Your task to perform on an android device: toggle data saver in the chrome app Image 0: 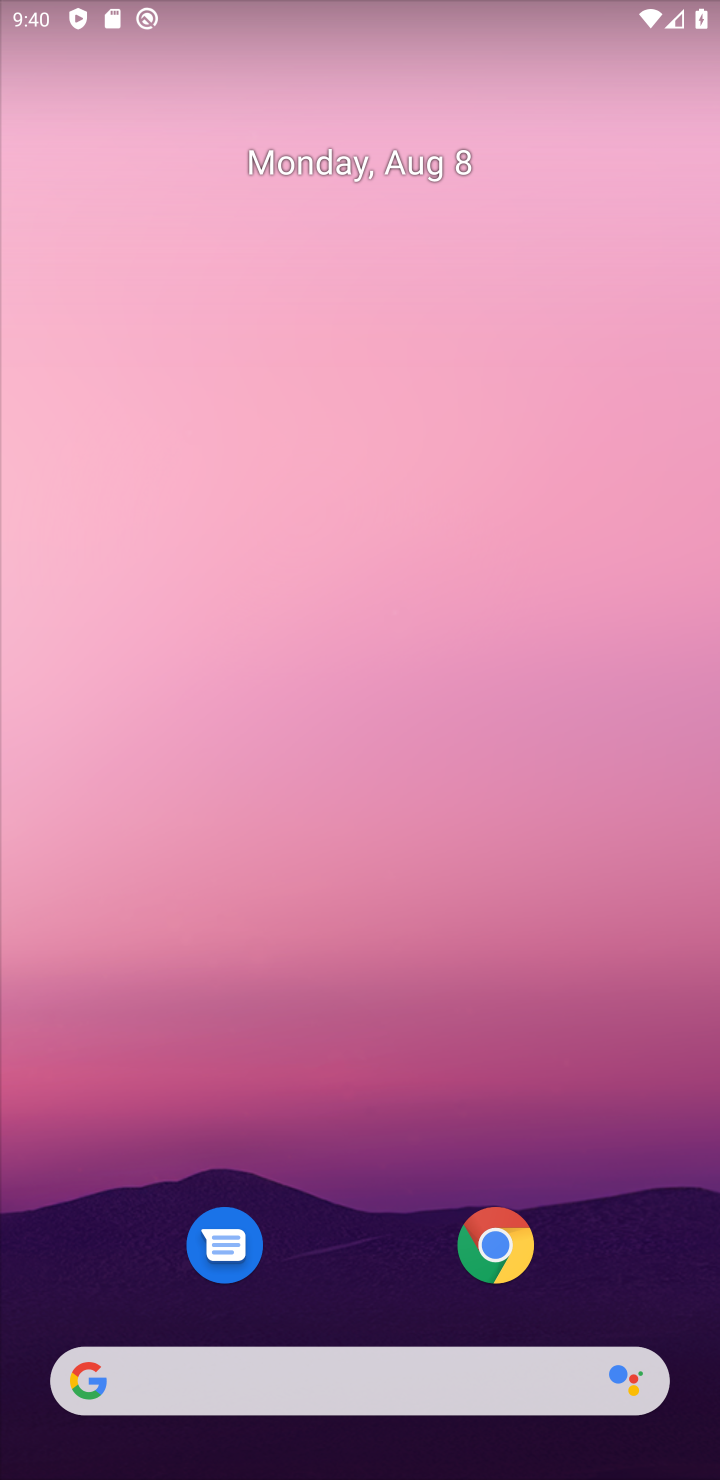
Step 0: press home button
Your task to perform on an android device: toggle data saver in the chrome app Image 1: 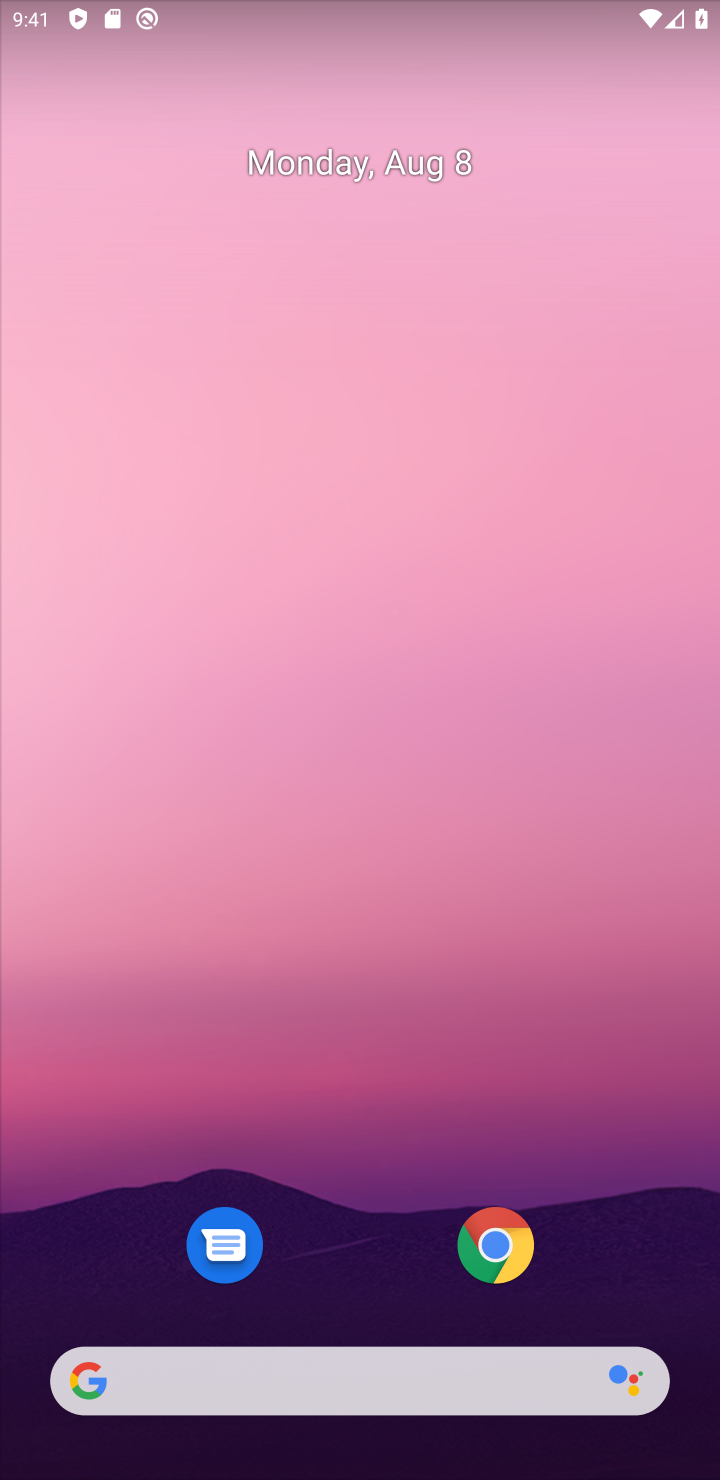
Step 1: click (496, 1243)
Your task to perform on an android device: toggle data saver in the chrome app Image 2: 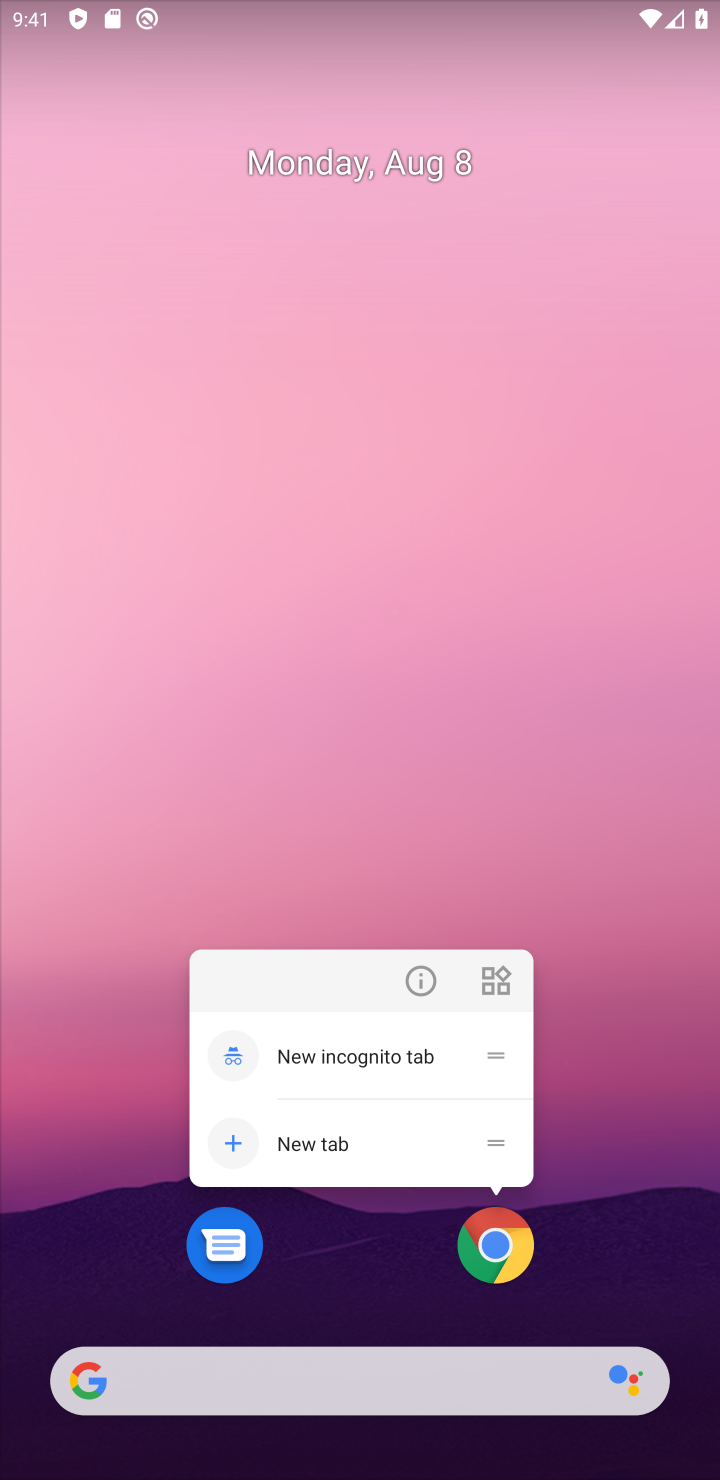
Step 2: click (496, 1243)
Your task to perform on an android device: toggle data saver in the chrome app Image 3: 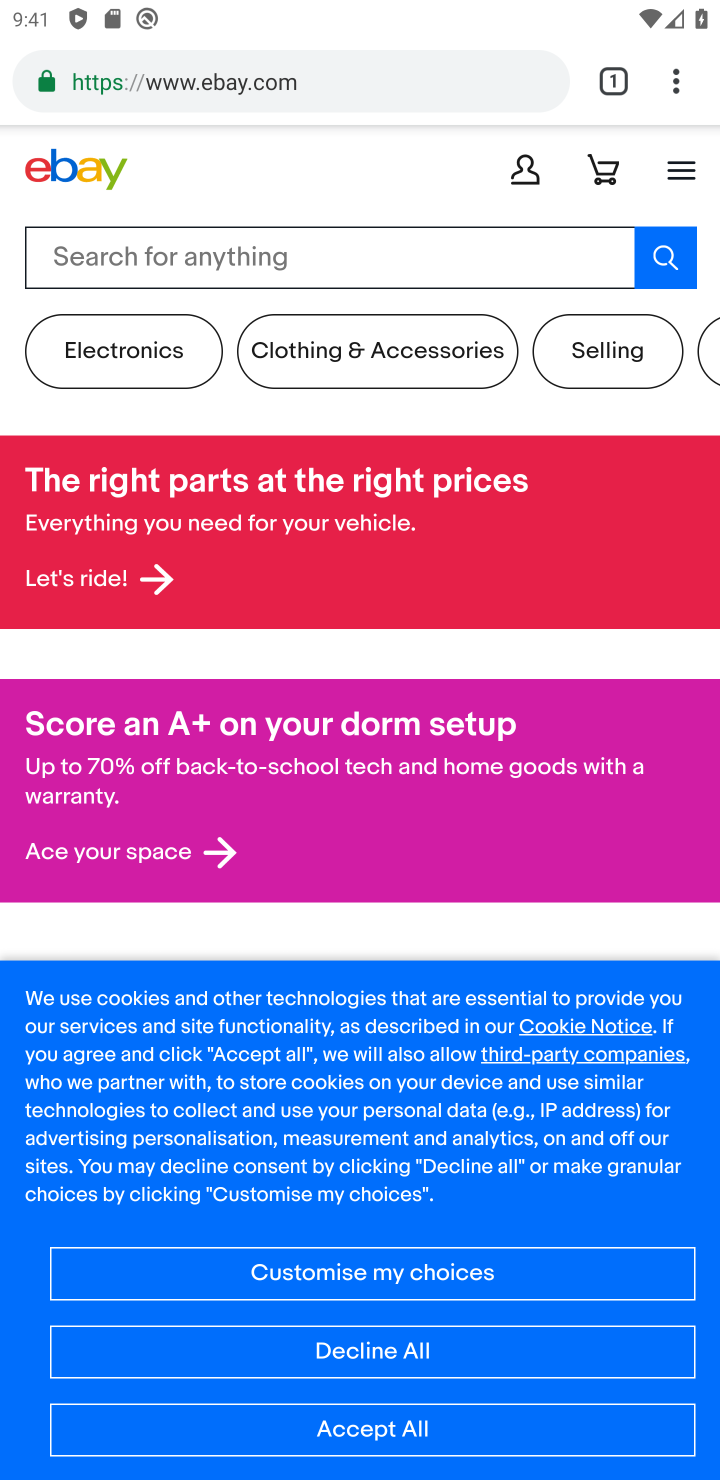
Step 3: click (665, 73)
Your task to perform on an android device: toggle data saver in the chrome app Image 4: 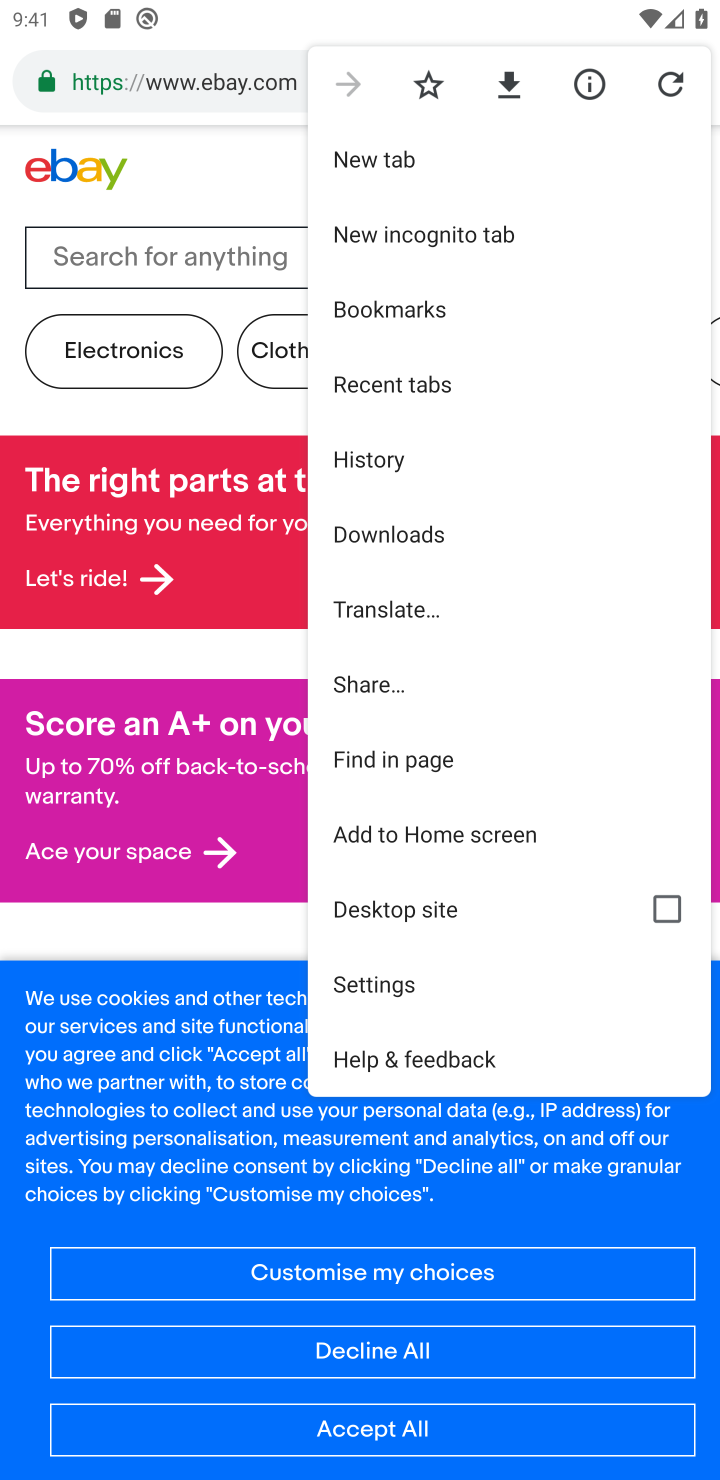
Step 4: click (392, 973)
Your task to perform on an android device: toggle data saver in the chrome app Image 5: 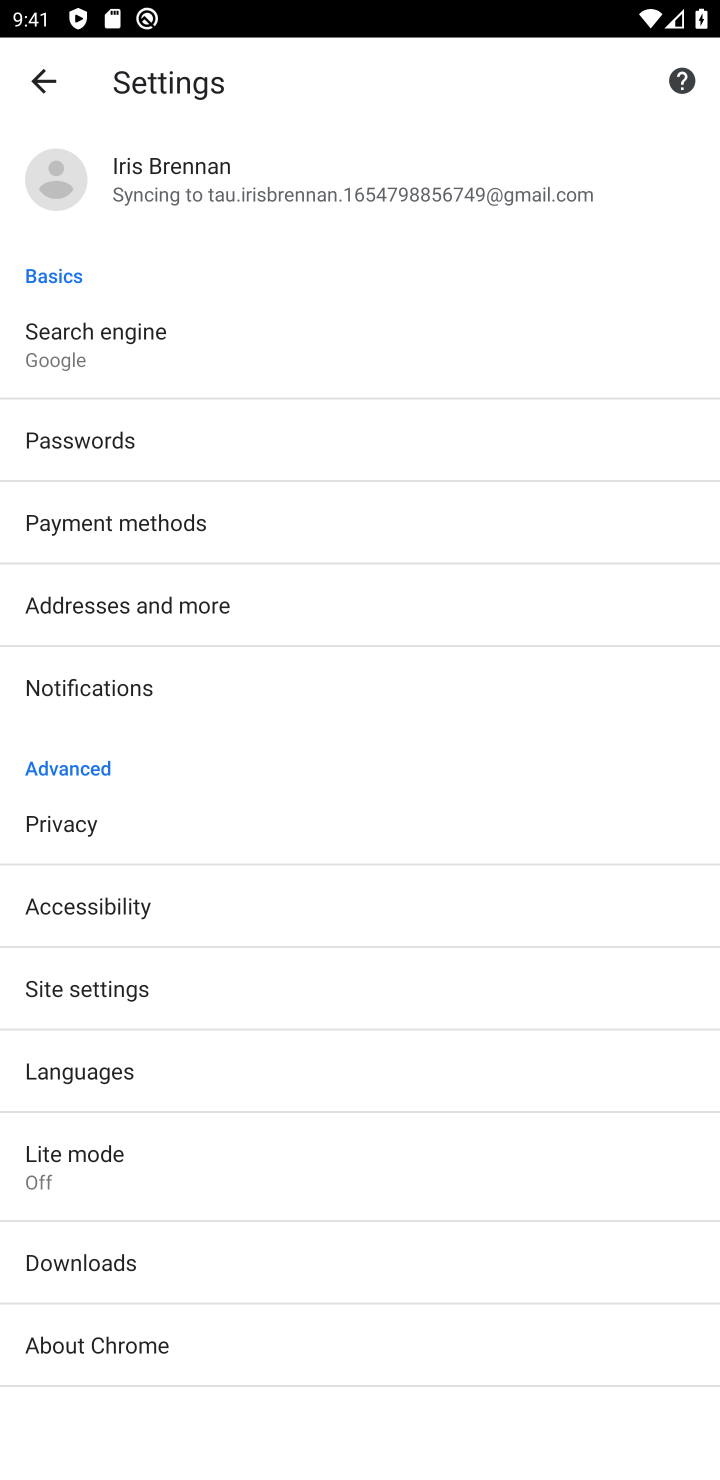
Step 5: click (99, 1148)
Your task to perform on an android device: toggle data saver in the chrome app Image 6: 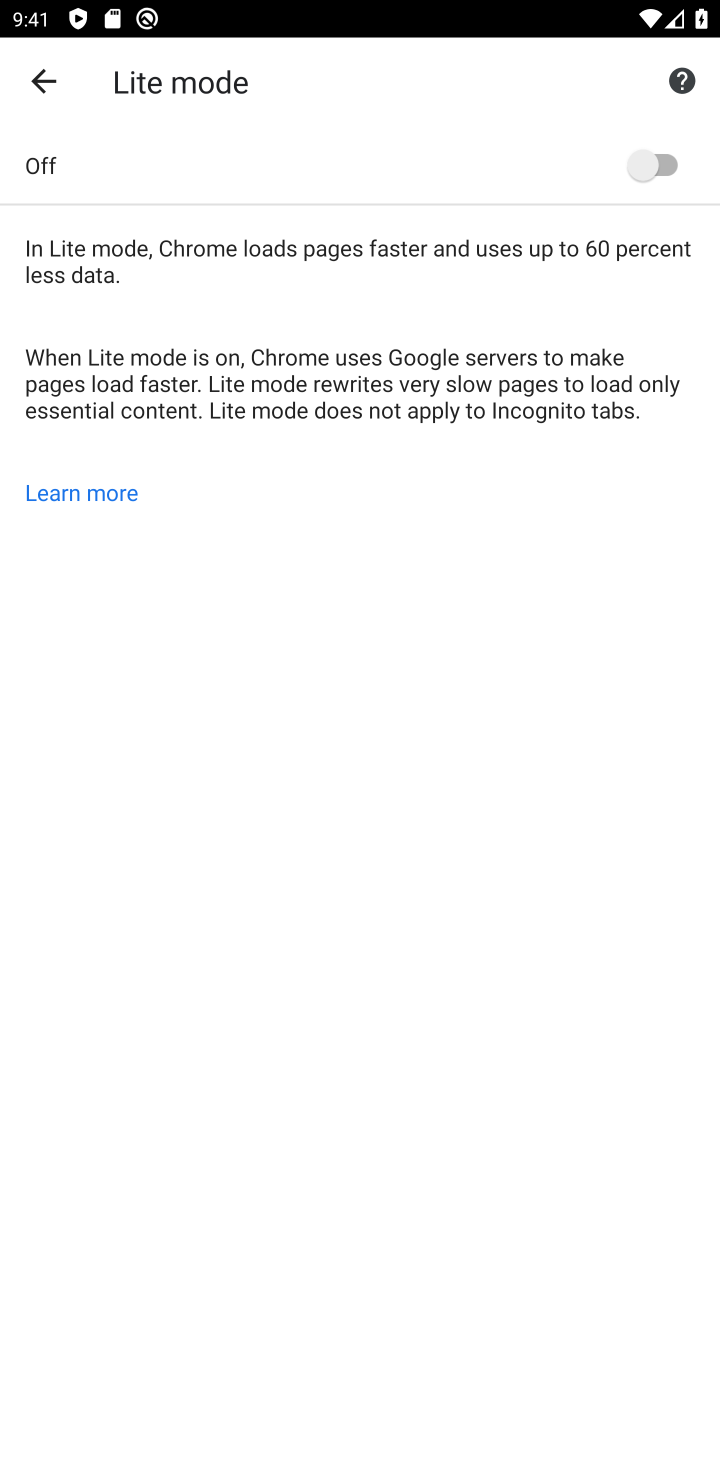
Step 6: click (647, 151)
Your task to perform on an android device: toggle data saver in the chrome app Image 7: 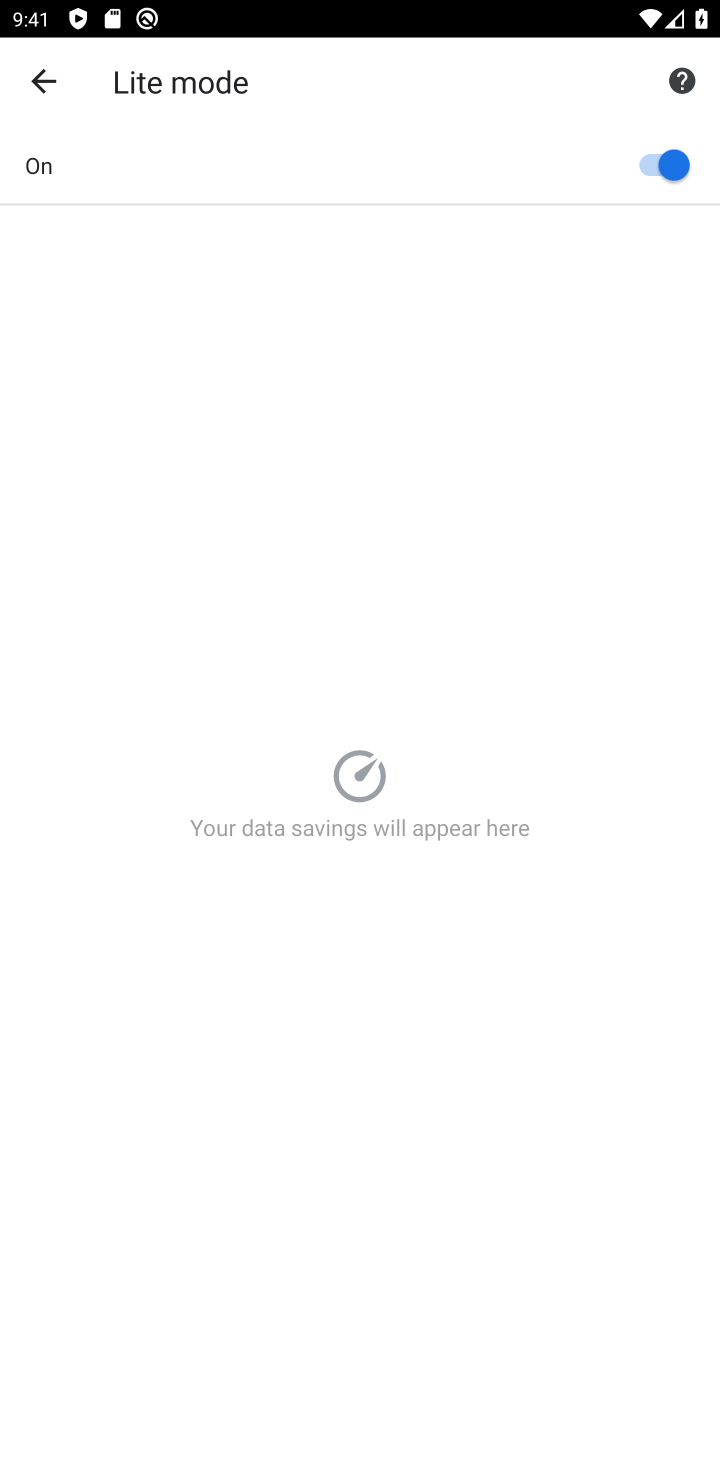
Step 7: task complete